Your task to perform on an android device: Open sound settings Image 0: 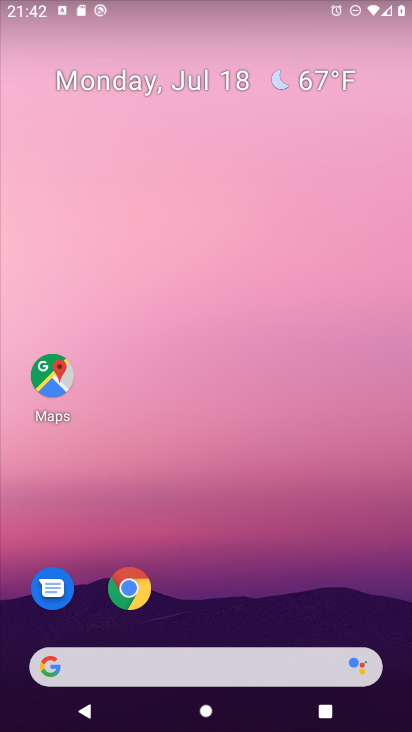
Step 0: drag from (387, 629) to (309, 85)
Your task to perform on an android device: Open sound settings Image 1: 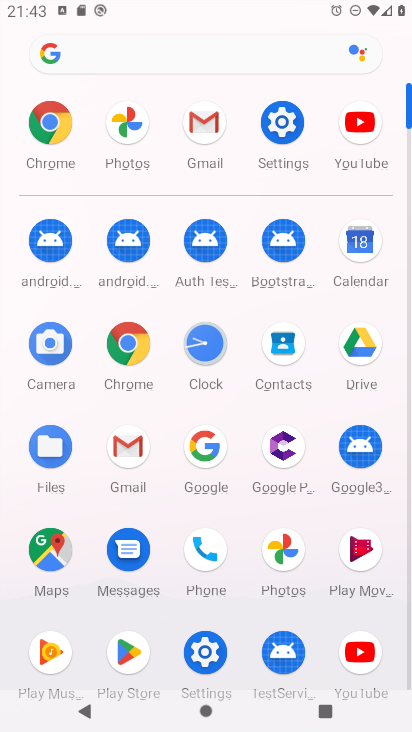
Step 1: click (205, 654)
Your task to perform on an android device: Open sound settings Image 2: 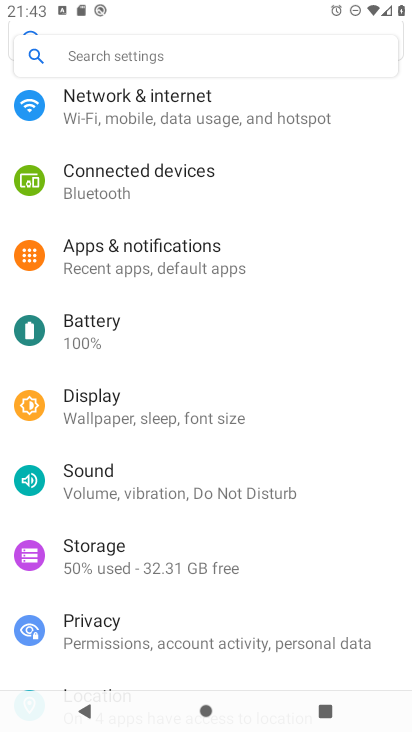
Step 2: click (86, 475)
Your task to perform on an android device: Open sound settings Image 3: 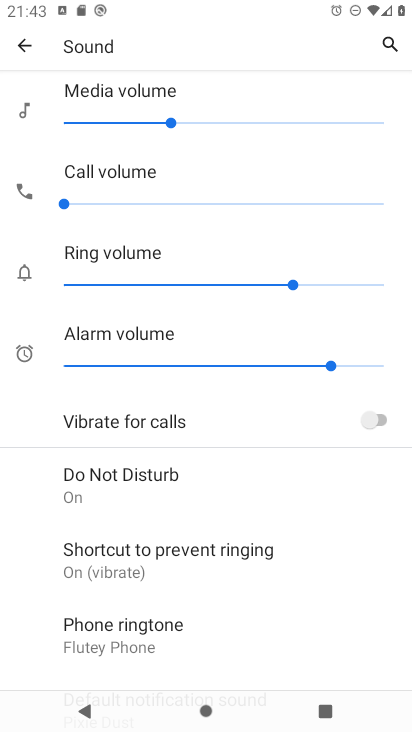
Step 3: drag from (284, 626) to (255, 334)
Your task to perform on an android device: Open sound settings Image 4: 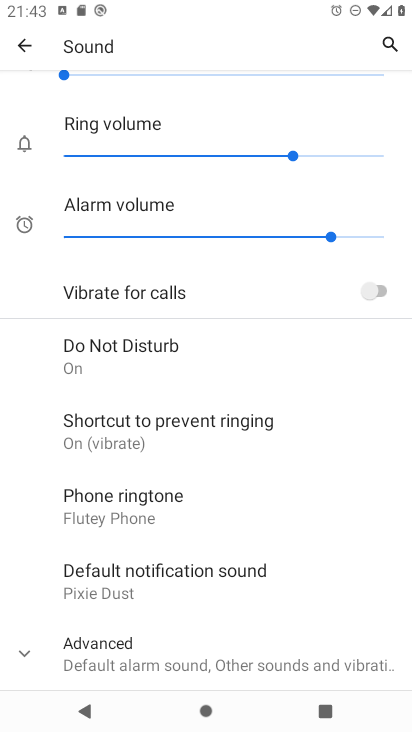
Step 4: click (19, 648)
Your task to perform on an android device: Open sound settings Image 5: 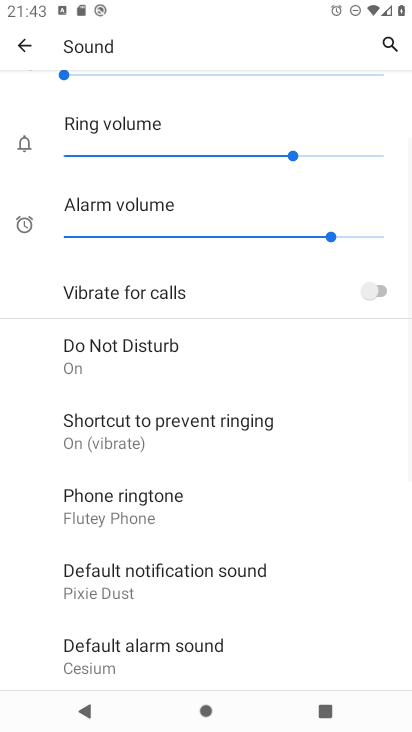
Step 5: task complete